Your task to perform on an android device: show emergency info Image 0: 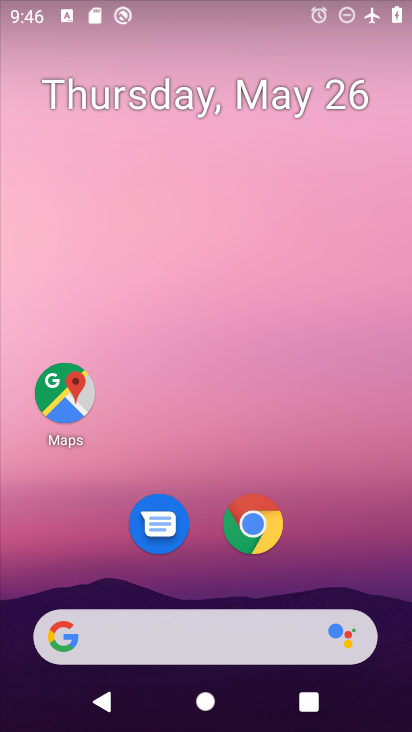
Step 0: drag from (319, 532) to (325, 57)
Your task to perform on an android device: show emergency info Image 1: 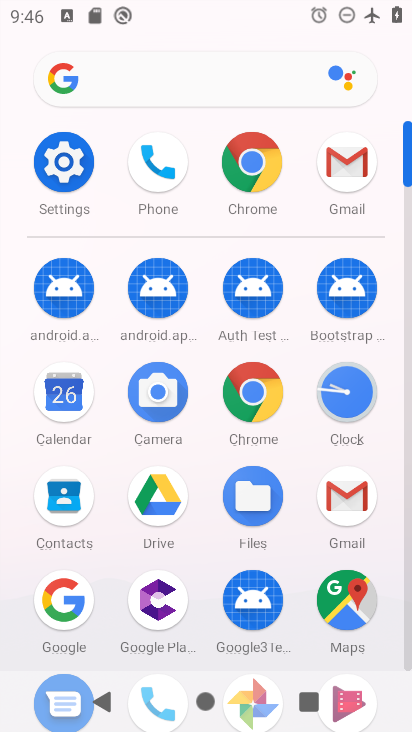
Step 1: click (67, 165)
Your task to perform on an android device: show emergency info Image 2: 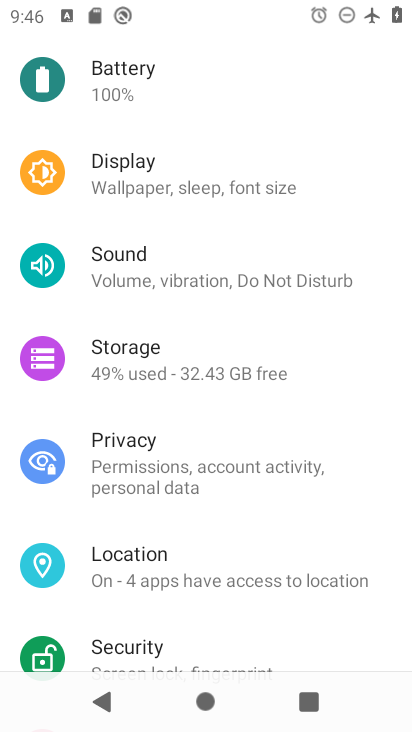
Step 2: drag from (230, 554) to (263, 53)
Your task to perform on an android device: show emergency info Image 3: 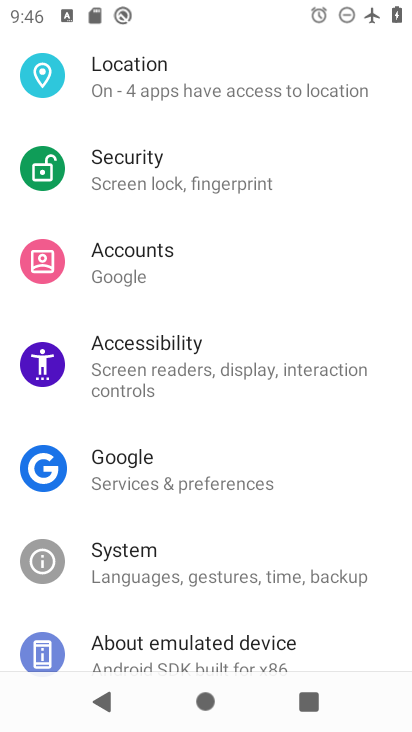
Step 3: drag from (240, 496) to (275, 130)
Your task to perform on an android device: show emergency info Image 4: 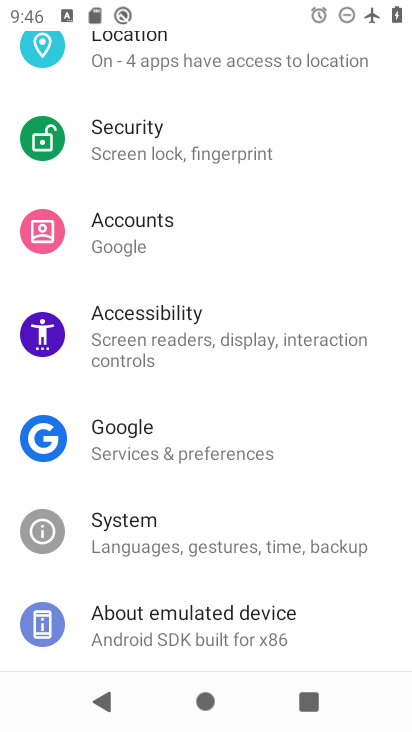
Step 4: click (213, 614)
Your task to perform on an android device: show emergency info Image 5: 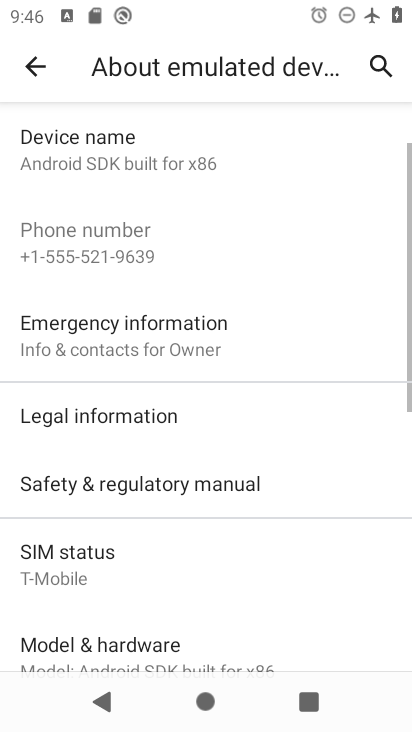
Step 5: click (186, 330)
Your task to perform on an android device: show emergency info Image 6: 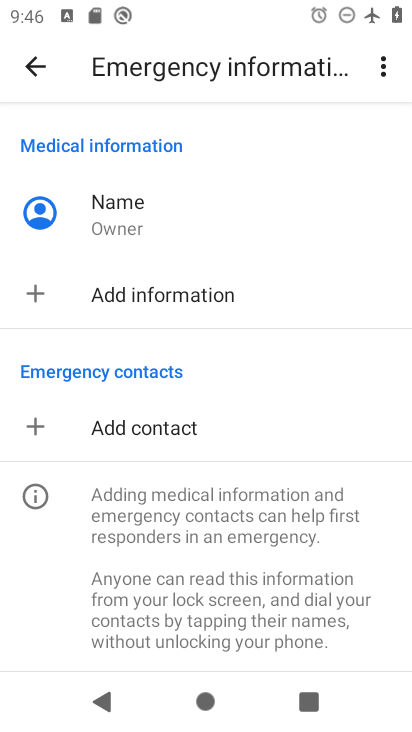
Step 6: task complete